Your task to perform on an android device: turn off sleep mode Image 0: 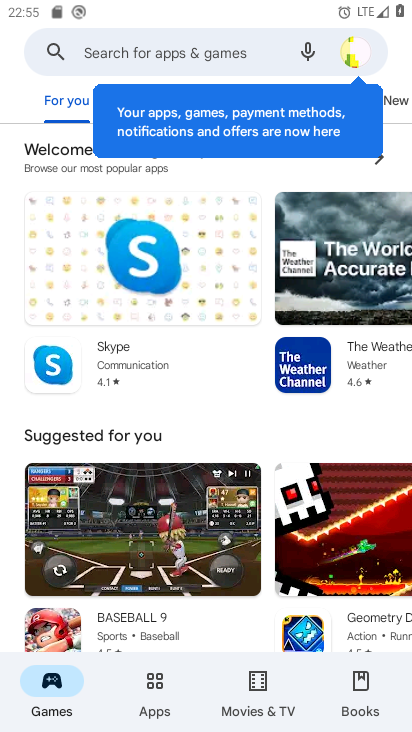
Step 0: press home button
Your task to perform on an android device: turn off sleep mode Image 1: 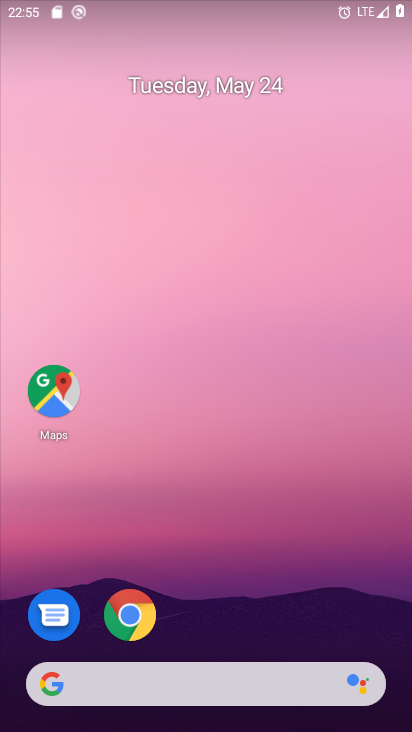
Step 1: task complete